Your task to perform on an android device: open a bookmark in the chrome app Image 0: 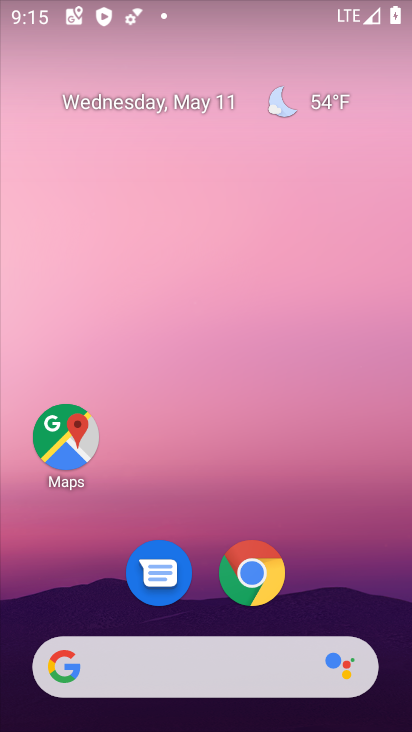
Step 0: drag from (229, 528) to (360, 50)
Your task to perform on an android device: open a bookmark in the chrome app Image 1: 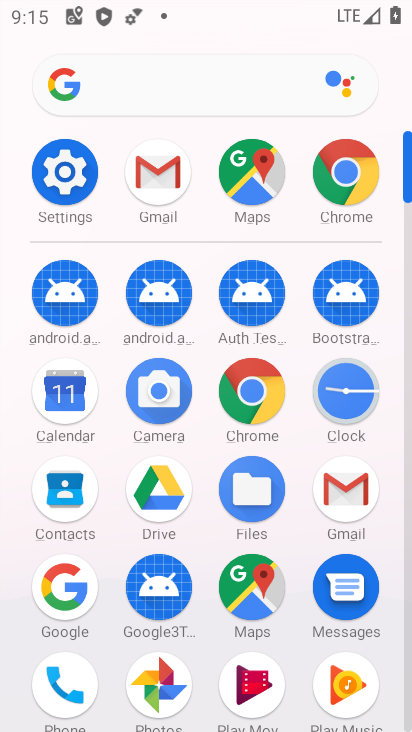
Step 1: click (255, 407)
Your task to perform on an android device: open a bookmark in the chrome app Image 2: 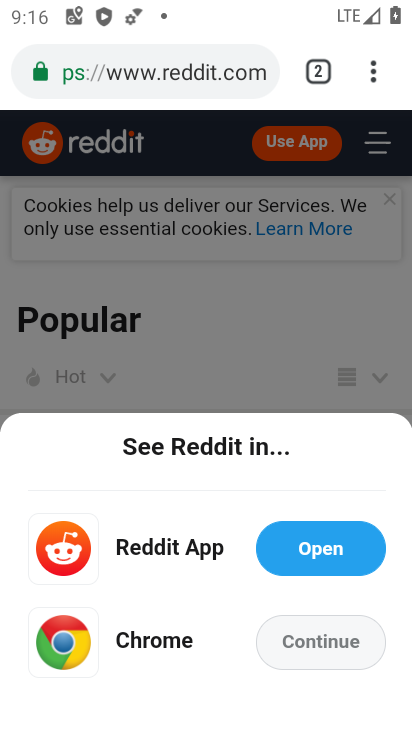
Step 2: click (370, 72)
Your task to perform on an android device: open a bookmark in the chrome app Image 3: 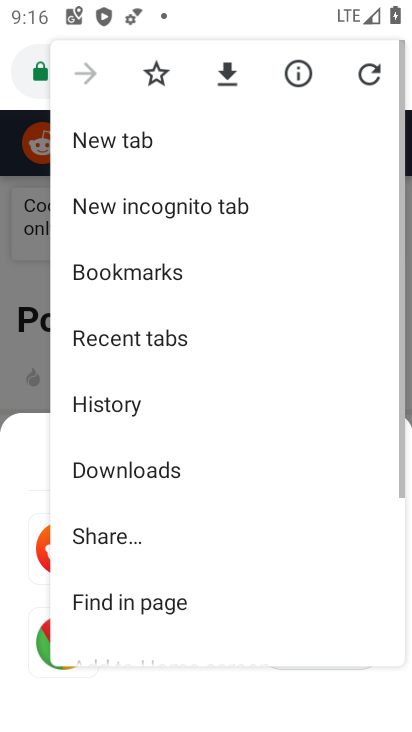
Step 3: click (118, 277)
Your task to perform on an android device: open a bookmark in the chrome app Image 4: 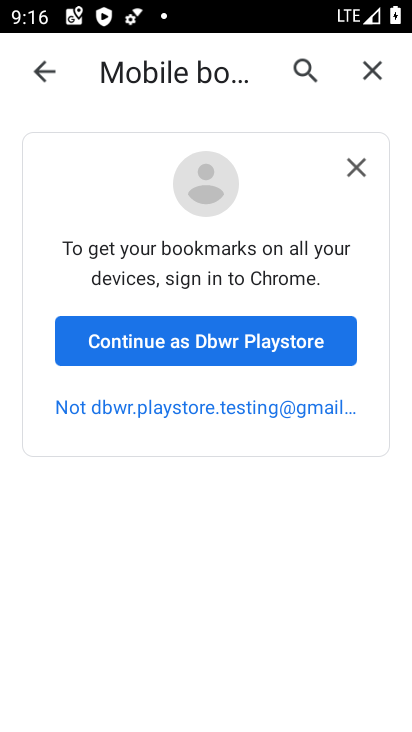
Step 4: task complete